Your task to perform on an android device: open app "Life360: Find Family & Friends" (install if not already installed), go to login, and select forgot password Image 0: 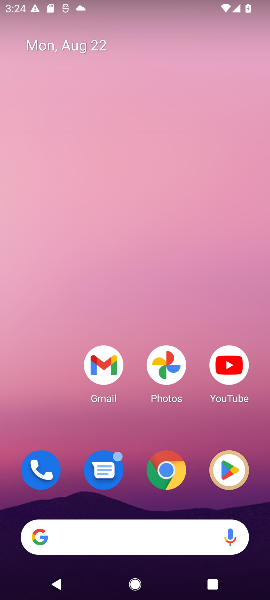
Step 0: drag from (150, 480) to (151, 147)
Your task to perform on an android device: open app "Life360: Find Family & Friends" (install if not already installed), go to login, and select forgot password Image 1: 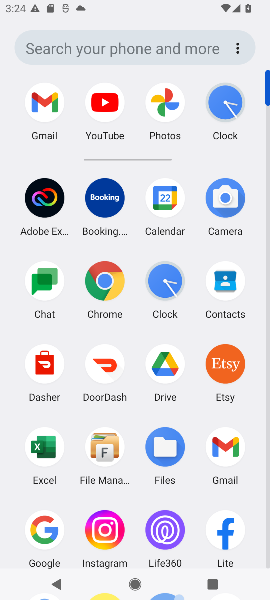
Step 1: click (208, 82)
Your task to perform on an android device: open app "Life360: Find Family & Friends" (install if not already installed), go to login, and select forgot password Image 2: 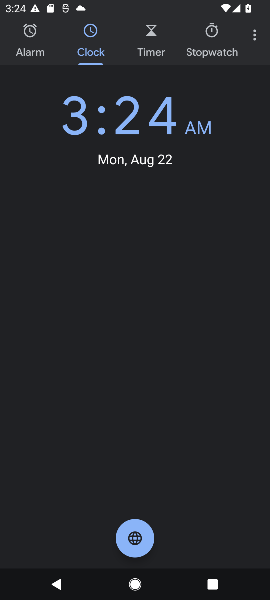
Step 2: drag from (117, 529) to (119, 266)
Your task to perform on an android device: open app "Life360: Find Family & Friends" (install if not already installed), go to login, and select forgot password Image 3: 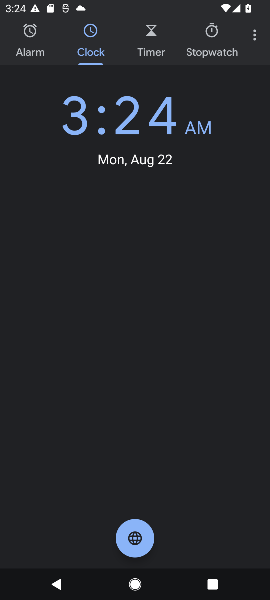
Step 3: press home button
Your task to perform on an android device: open app "Life360: Find Family & Friends" (install if not already installed), go to login, and select forgot password Image 4: 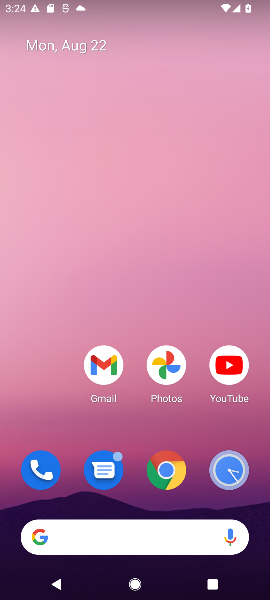
Step 4: drag from (99, 524) to (105, 106)
Your task to perform on an android device: open app "Life360: Find Family & Friends" (install if not already installed), go to login, and select forgot password Image 5: 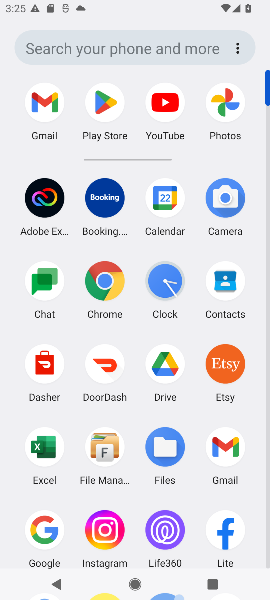
Step 5: drag from (82, 510) to (96, 295)
Your task to perform on an android device: open app "Life360: Find Family & Friends" (install if not already installed), go to login, and select forgot password Image 6: 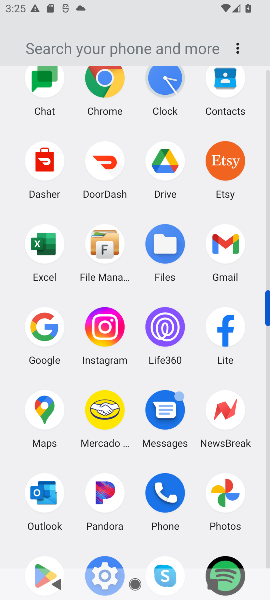
Step 6: drag from (108, 513) to (134, 240)
Your task to perform on an android device: open app "Life360: Find Family & Friends" (install if not already installed), go to login, and select forgot password Image 7: 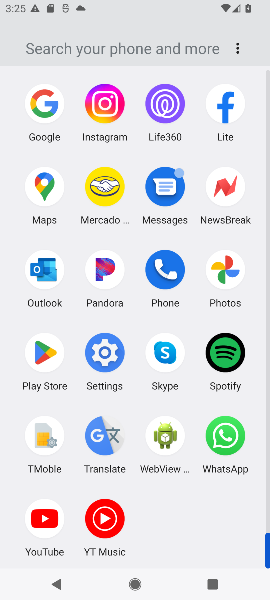
Step 7: drag from (109, 120) to (165, 214)
Your task to perform on an android device: open app "Life360: Find Family & Friends" (install if not already installed), go to login, and select forgot password Image 8: 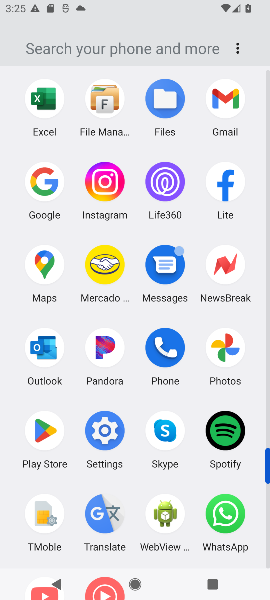
Step 8: click (43, 441)
Your task to perform on an android device: open app "Life360: Find Family & Friends" (install if not already installed), go to login, and select forgot password Image 9: 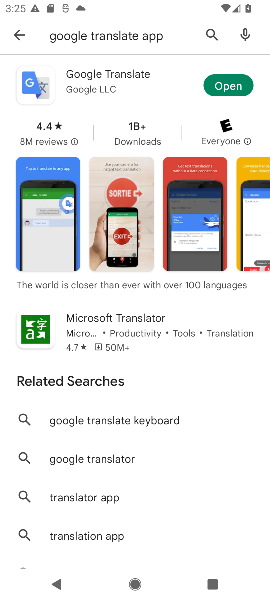
Step 9: click (25, 29)
Your task to perform on an android device: open app "Life360: Find Family & Friends" (install if not already installed), go to login, and select forgot password Image 10: 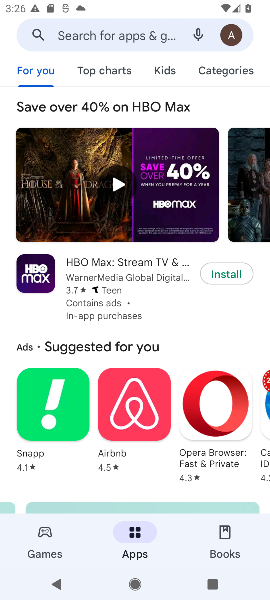
Step 10: click (108, 33)
Your task to perform on an android device: open app "Life360: Find Family & Friends" (install if not already installed), go to login, and select forgot password Image 11: 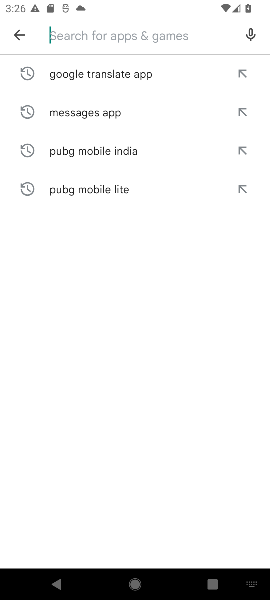
Step 11: type "Life360: Find Family & Friends"
Your task to perform on an android device: open app "Life360: Find Family & Friends" (install if not already installed), go to login, and select forgot password Image 12: 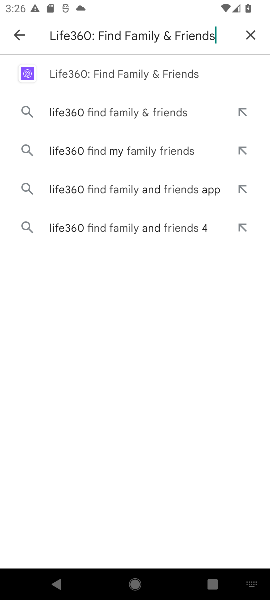
Step 12: click (131, 71)
Your task to perform on an android device: open app "Life360: Find Family & Friends" (install if not already installed), go to login, and select forgot password Image 13: 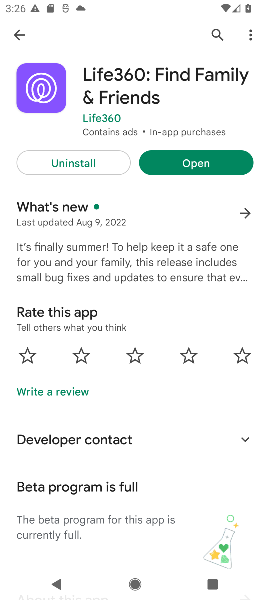
Step 13: click (192, 173)
Your task to perform on an android device: open app "Life360: Find Family & Friends" (install if not already installed), go to login, and select forgot password Image 14: 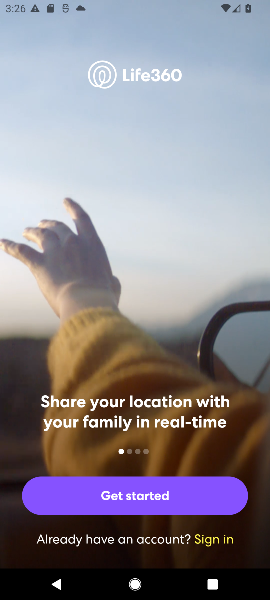
Step 14: task complete